Your task to perform on an android device: What's the latest news in space exploration? Image 0: 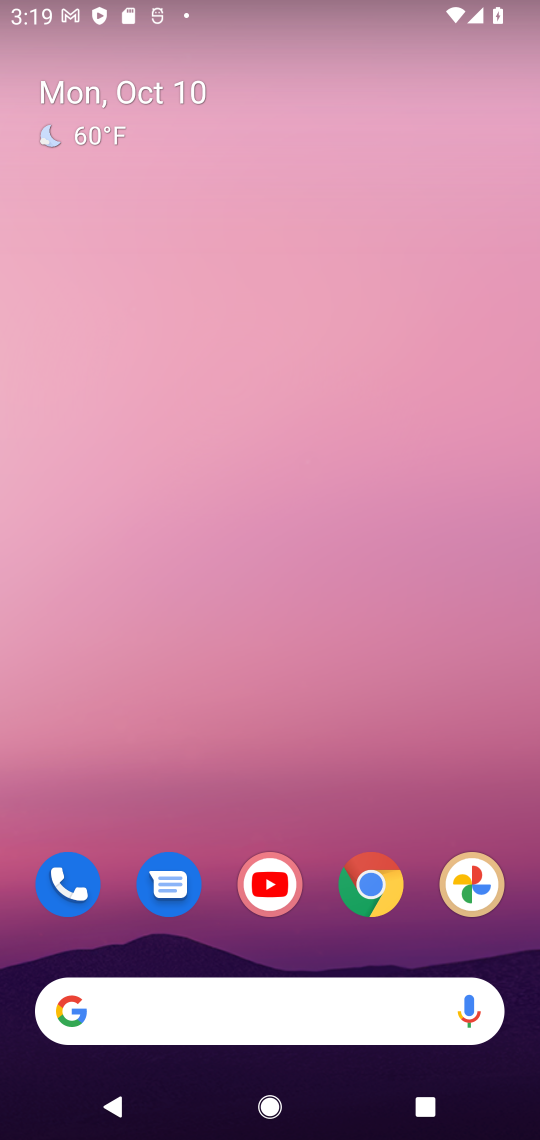
Step 0: click (206, 1018)
Your task to perform on an android device: What's the latest news in space exploration? Image 1: 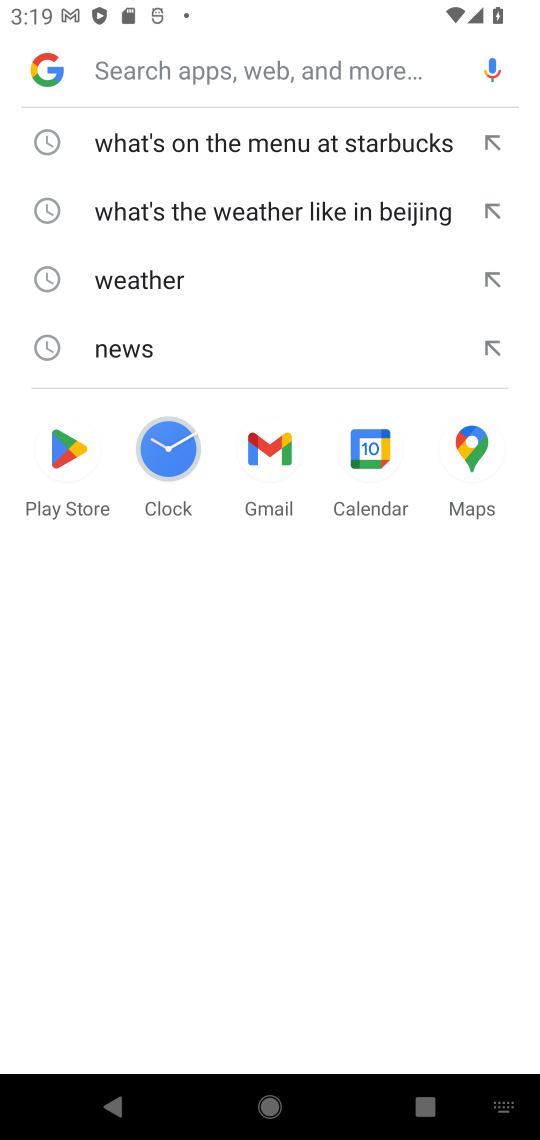
Step 1: click (151, 73)
Your task to perform on an android device: What's the latest news in space exploration? Image 2: 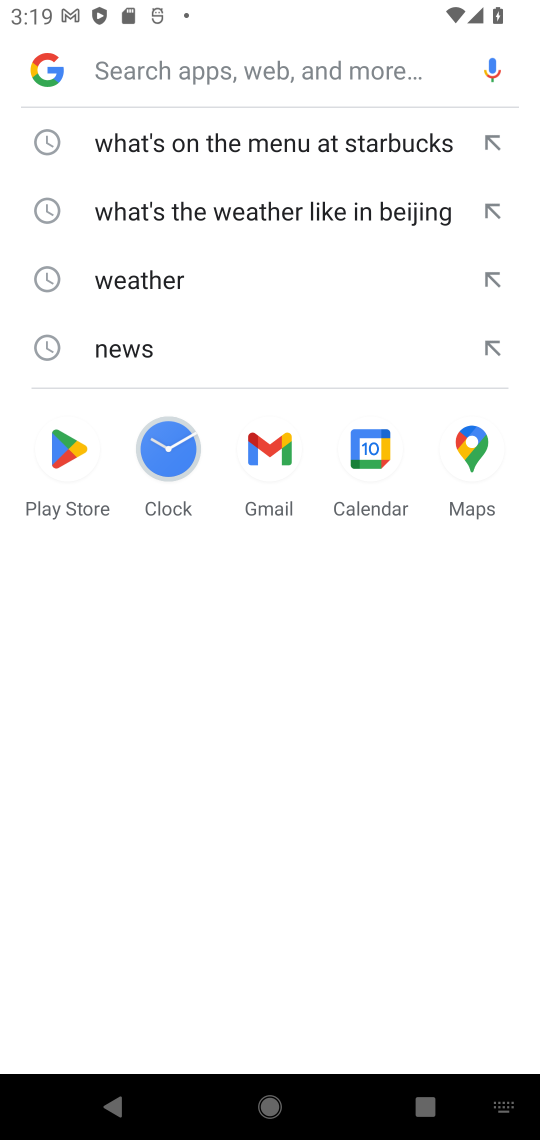
Step 2: type " latest news in space exploration"
Your task to perform on an android device: What's the latest news in space exploration? Image 3: 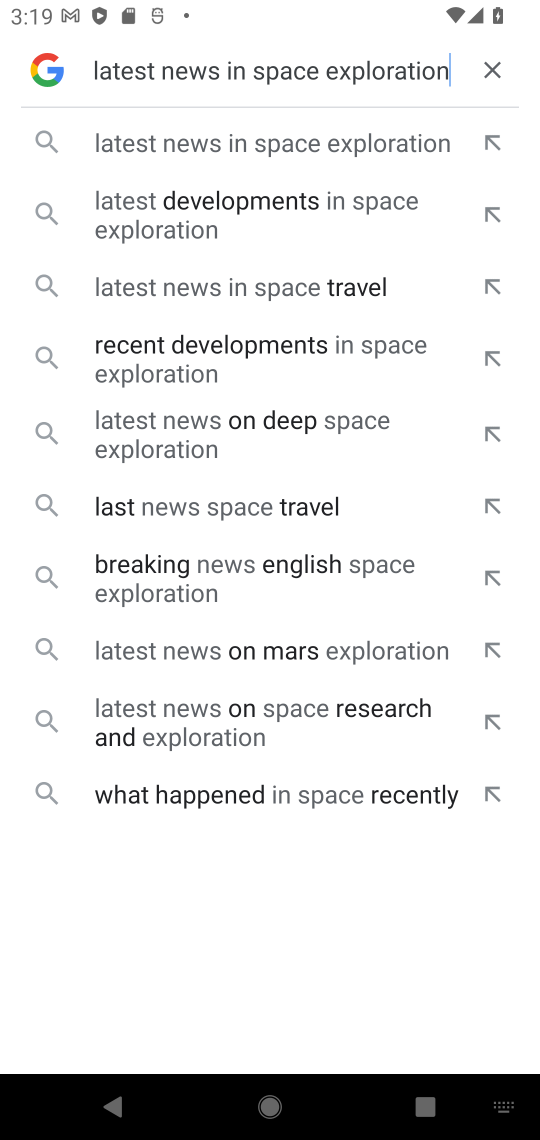
Step 3: click (202, 151)
Your task to perform on an android device: What's the latest news in space exploration? Image 4: 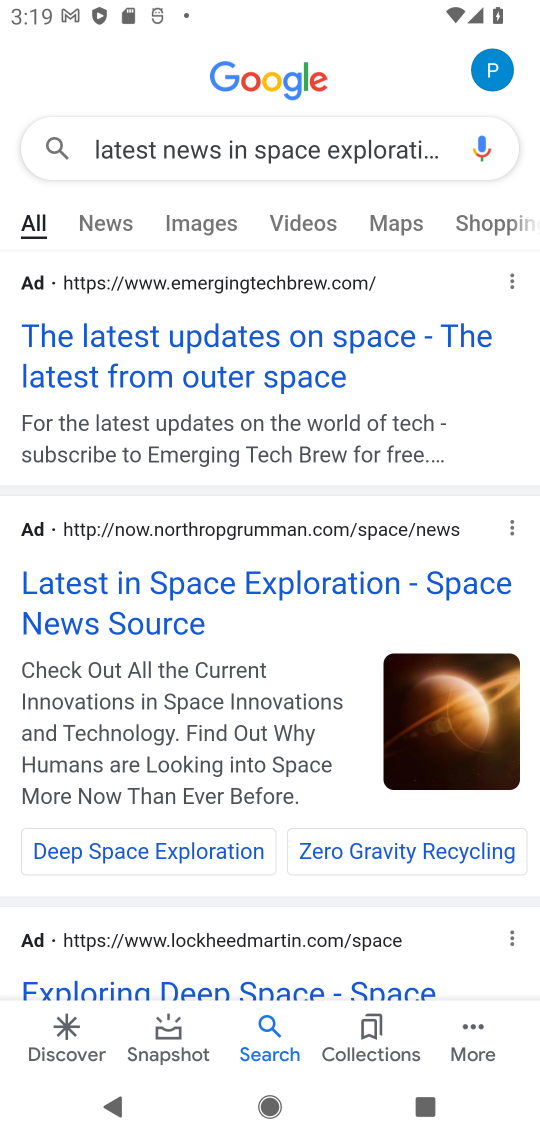
Step 4: click (169, 395)
Your task to perform on an android device: What's the latest news in space exploration? Image 5: 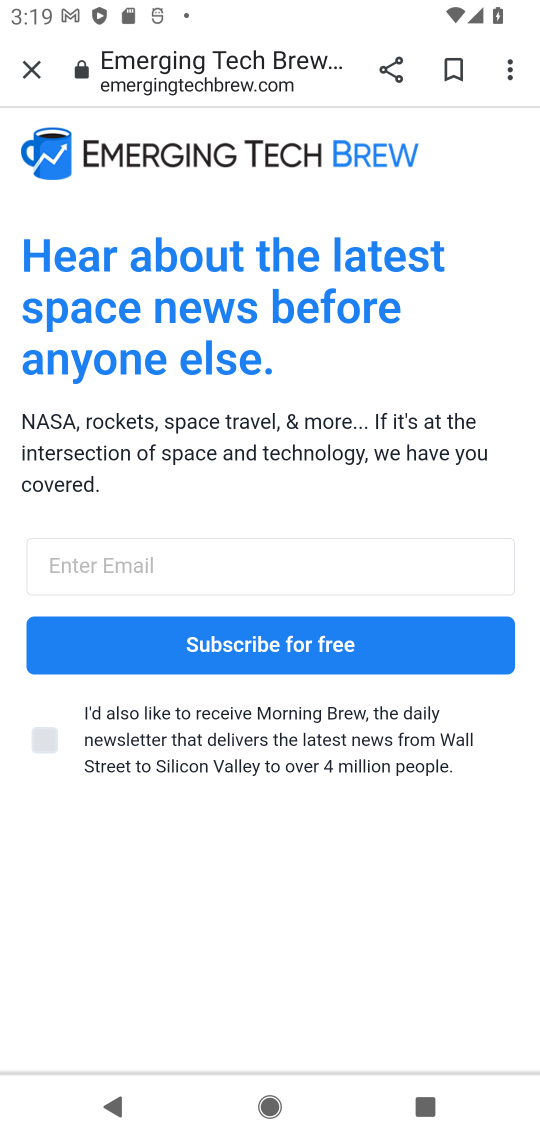
Step 5: task complete